Your task to perform on an android device: turn off picture-in-picture Image 0: 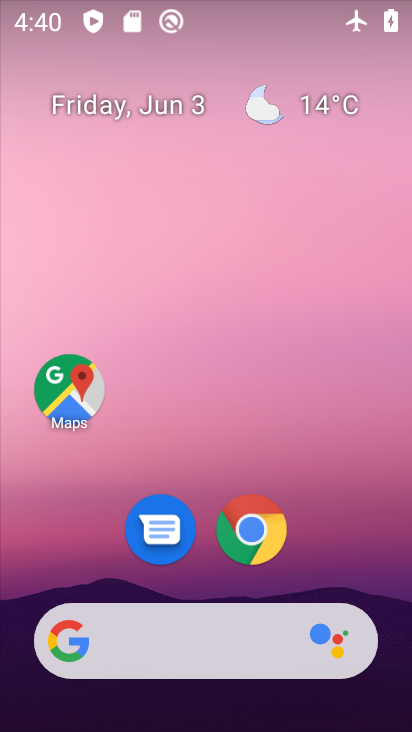
Step 0: click (246, 524)
Your task to perform on an android device: turn off picture-in-picture Image 1: 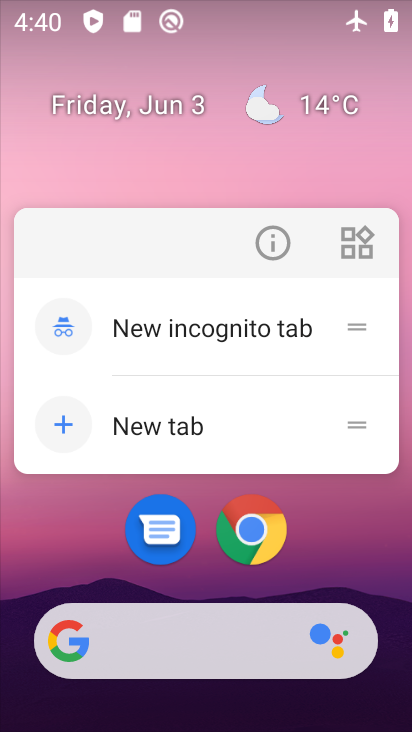
Step 1: click (272, 234)
Your task to perform on an android device: turn off picture-in-picture Image 2: 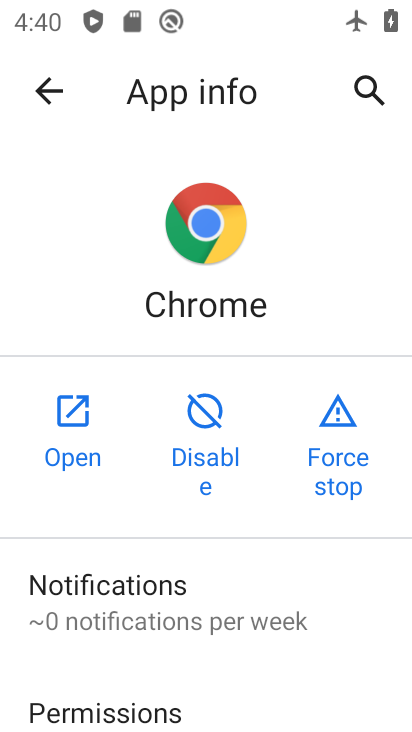
Step 2: drag from (215, 695) to (211, 240)
Your task to perform on an android device: turn off picture-in-picture Image 3: 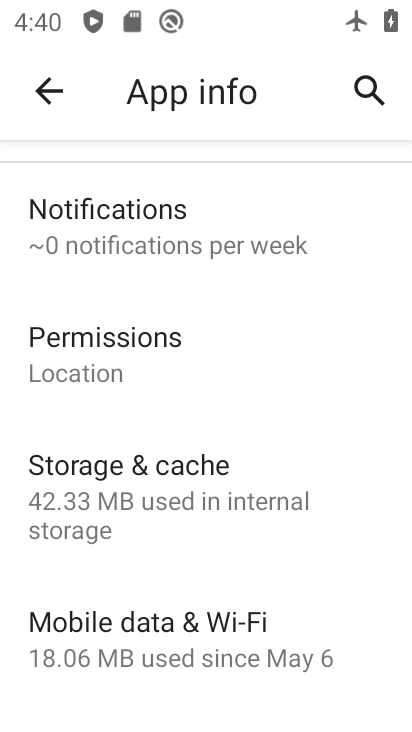
Step 3: drag from (221, 662) to (211, 228)
Your task to perform on an android device: turn off picture-in-picture Image 4: 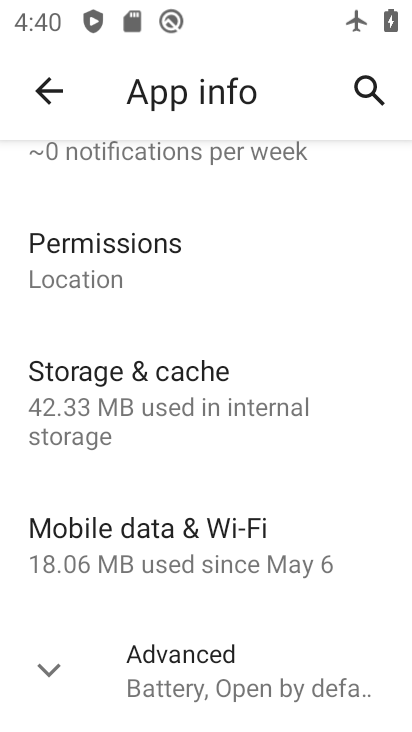
Step 4: click (42, 660)
Your task to perform on an android device: turn off picture-in-picture Image 5: 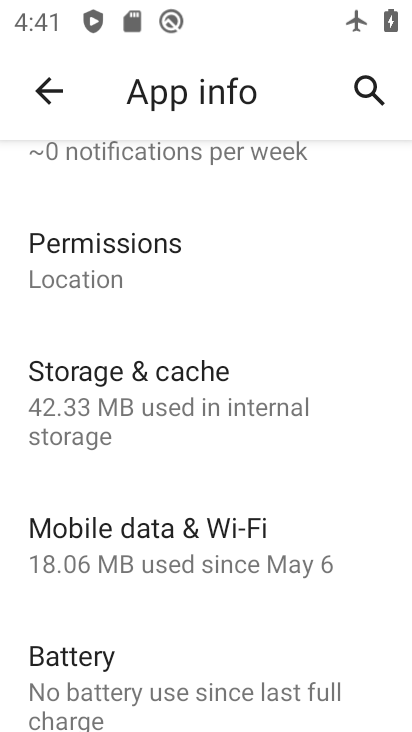
Step 5: drag from (148, 642) to (159, 159)
Your task to perform on an android device: turn off picture-in-picture Image 6: 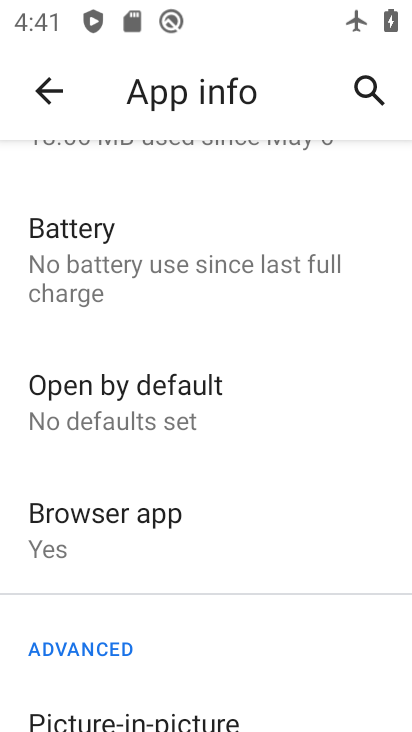
Step 6: click (214, 704)
Your task to perform on an android device: turn off picture-in-picture Image 7: 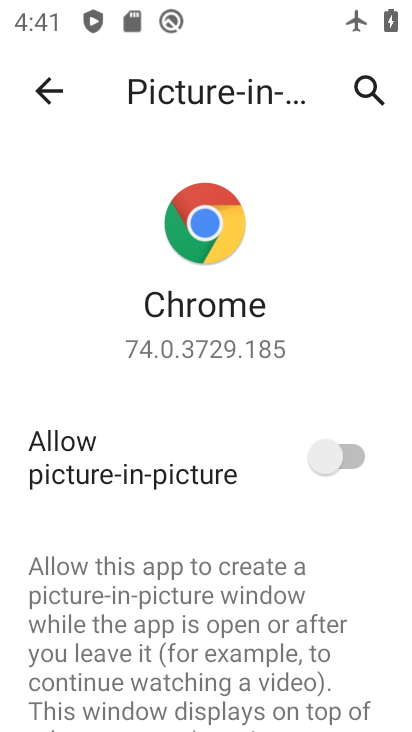
Step 7: task complete